Your task to perform on an android device: Toggle the flashlight Image 0: 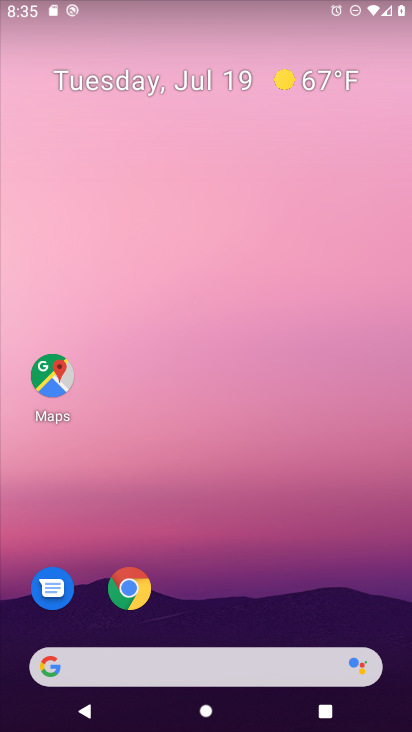
Step 0: drag from (292, 8) to (293, 298)
Your task to perform on an android device: Toggle the flashlight Image 1: 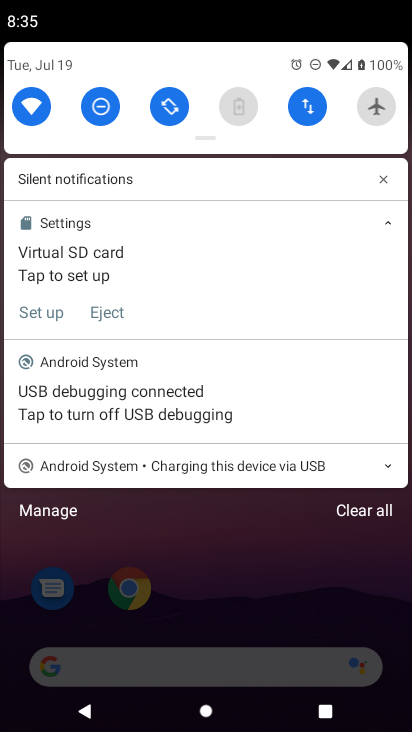
Step 1: drag from (209, 50) to (221, 320)
Your task to perform on an android device: Toggle the flashlight Image 2: 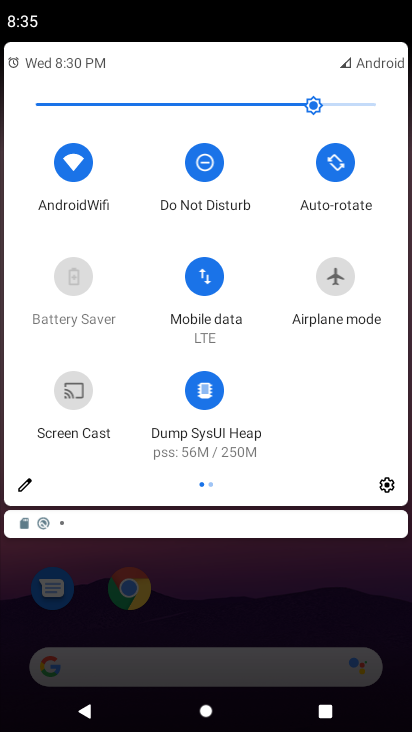
Step 2: click (29, 485)
Your task to perform on an android device: Toggle the flashlight Image 3: 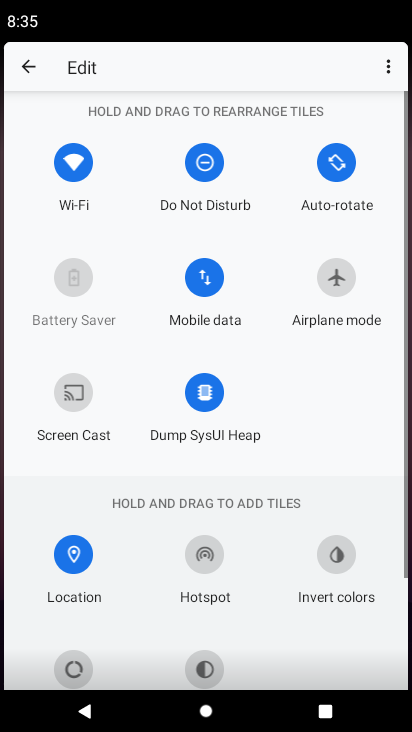
Step 3: task complete